Your task to perform on an android device: toggle translation in the chrome app Image 0: 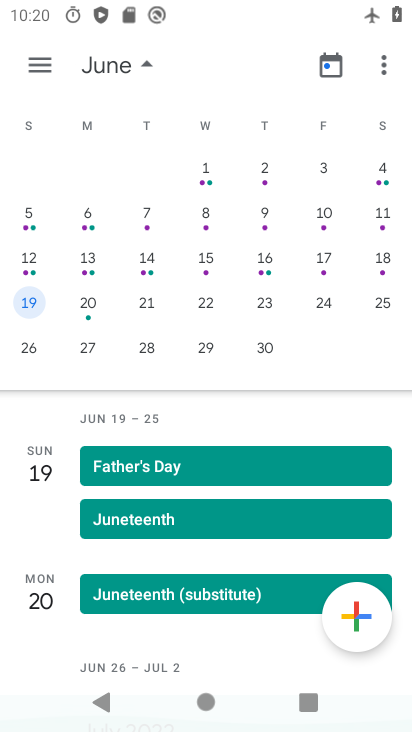
Step 0: press home button
Your task to perform on an android device: toggle translation in the chrome app Image 1: 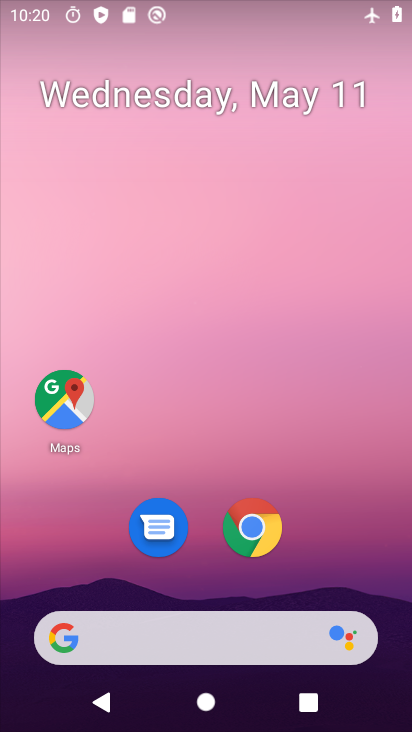
Step 1: drag from (293, 550) to (411, 44)
Your task to perform on an android device: toggle translation in the chrome app Image 2: 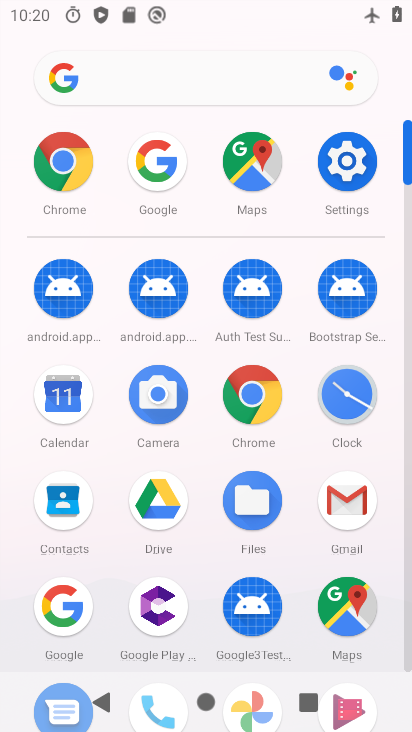
Step 2: click (262, 413)
Your task to perform on an android device: toggle translation in the chrome app Image 3: 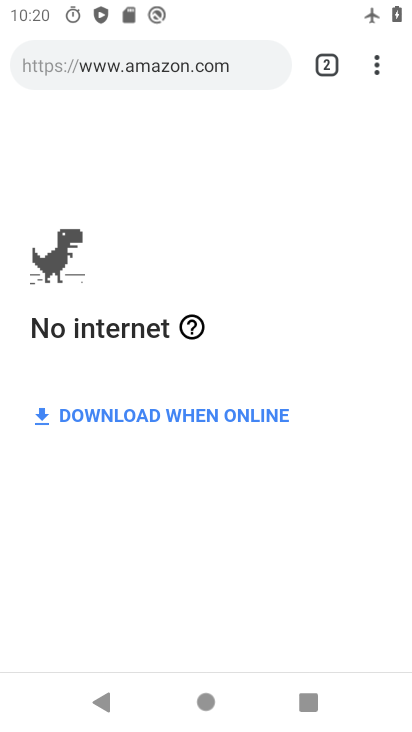
Step 3: click (381, 70)
Your task to perform on an android device: toggle translation in the chrome app Image 4: 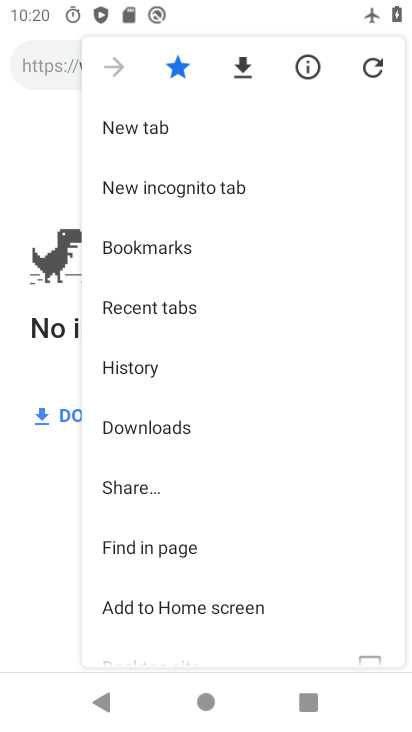
Step 4: task complete